Your task to perform on an android device: turn on data saver in the chrome app Image 0: 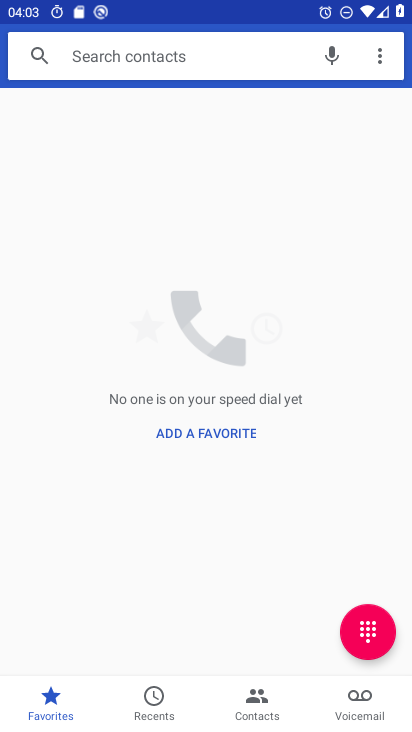
Step 0: press home button
Your task to perform on an android device: turn on data saver in the chrome app Image 1: 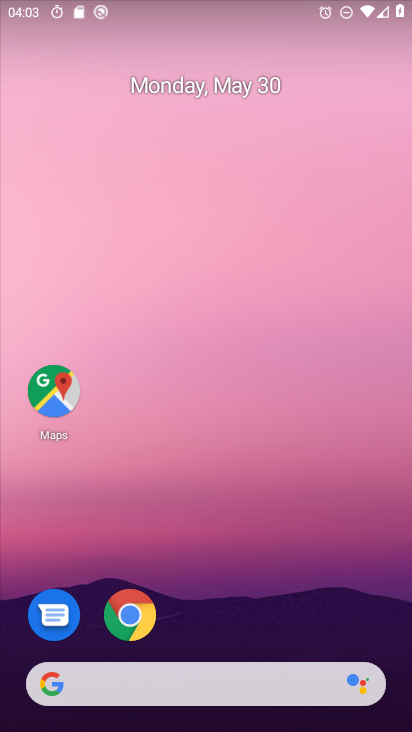
Step 1: drag from (297, 605) to (235, 174)
Your task to perform on an android device: turn on data saver in the chrome app Image 2: 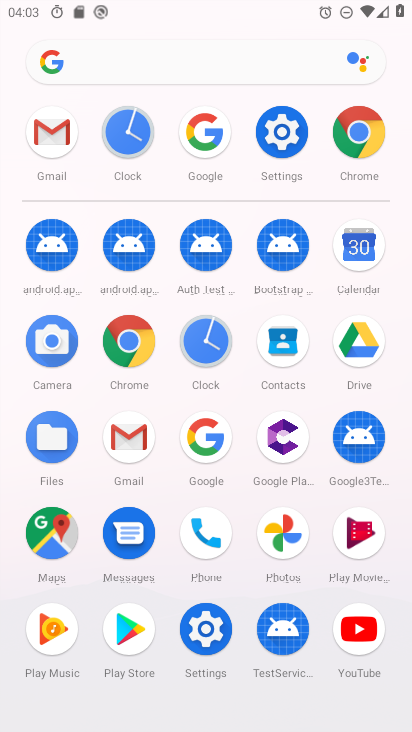
Step 2: click (361, 130)
Your task to perform on an android device: turn on data saver in the chrome app Image 3: 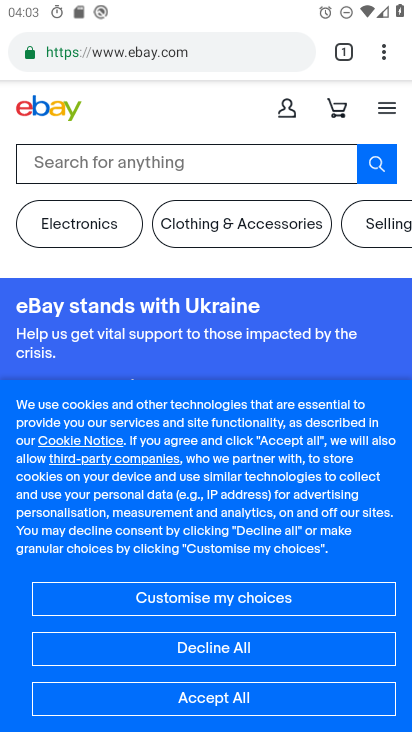
Step 3: click (384, 52)
Your task to perform on an android device: turn on data saver in the chrome app Image 4: 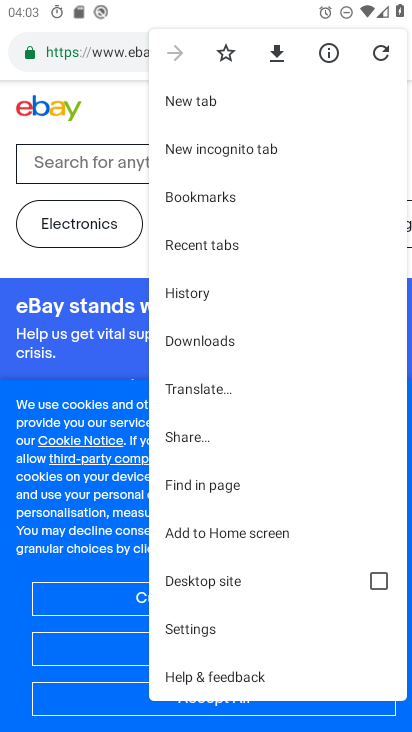
Step 4: drag from (231, 421) to (234, 313)
Your task to perform on an android device: turn on data saver in the chrome app Image 5: 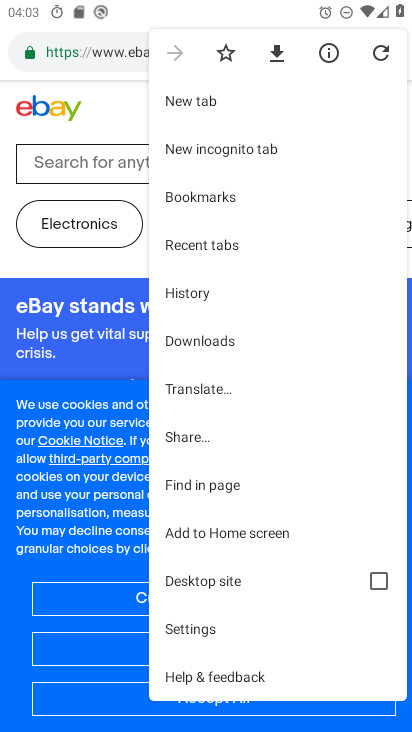
Step 5: click (198, 625)
Your task to perform on an android device: turn on data saver in the chrome app Image 6: 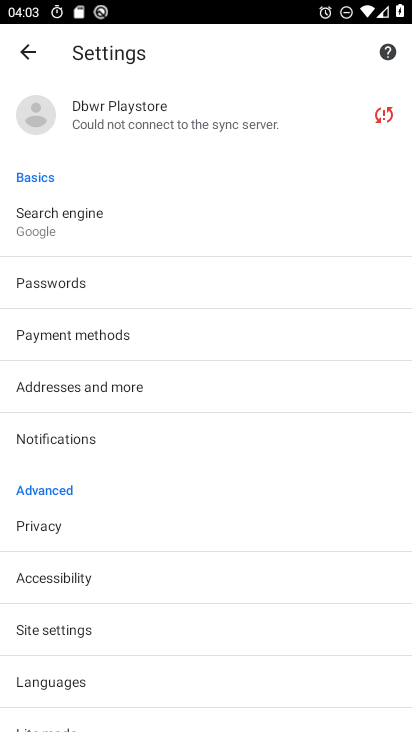
Step 6: drag from (115, 441) to (187, 344)
Your task to perform on an android device: turn on data saver in the chrome app Image 7: 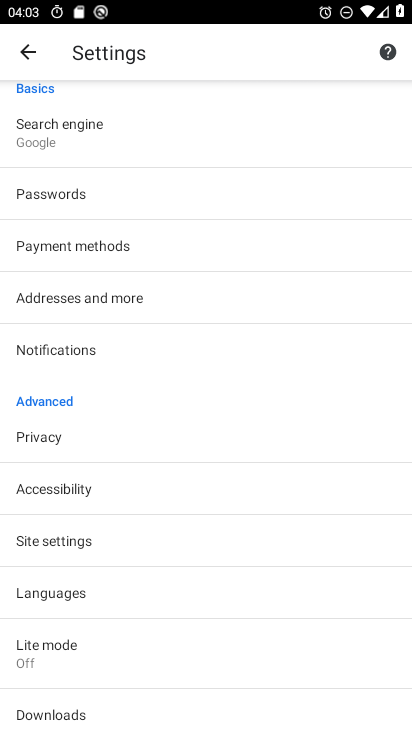
Step 7: drag from (146, 534) to (216, 429)
Your task to perform on an android device: turn on data saver in the chrome app Image 8: 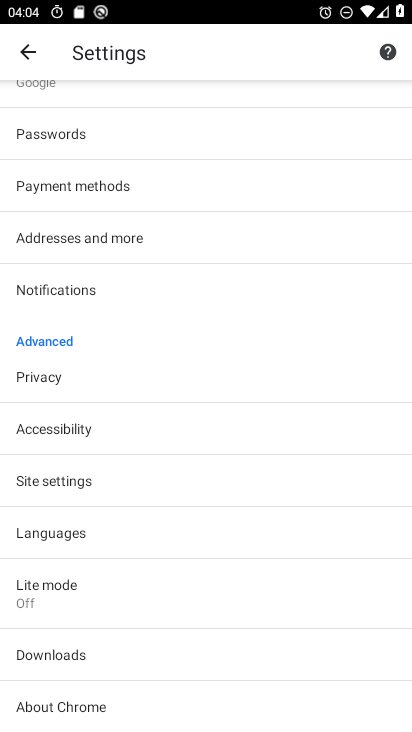
Step 8: click (69, 585)
Your task to perform on an android device: turn on data saver in the chrome app Image 9: 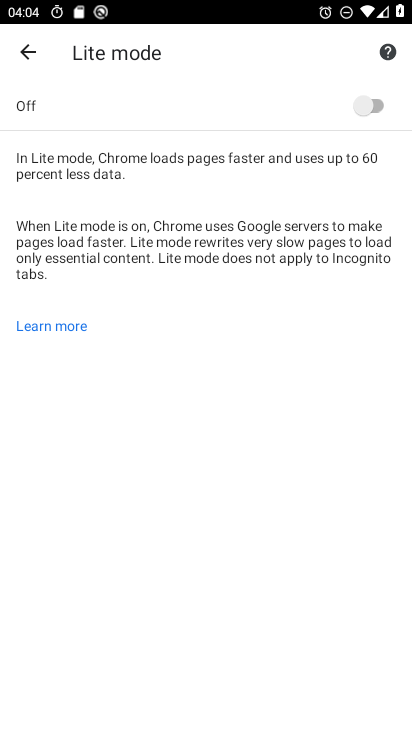
Step 9: click (365, 112)
Your task to perform on an android device: turn on data saver in the chrome app Image 10: 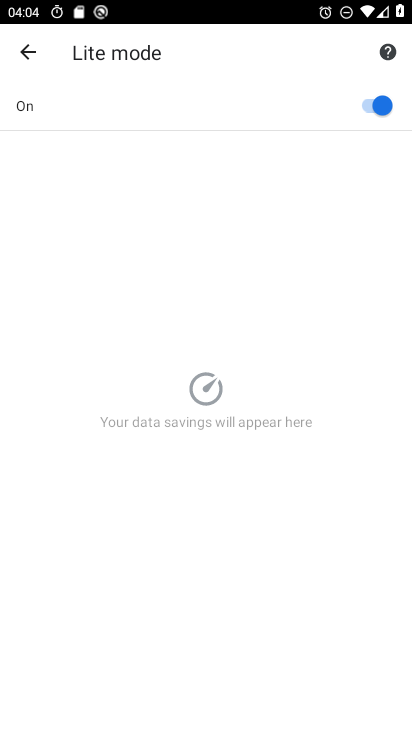
Step 10: task complete